Your task to perform on an android device: Open wifi settings Image 0: 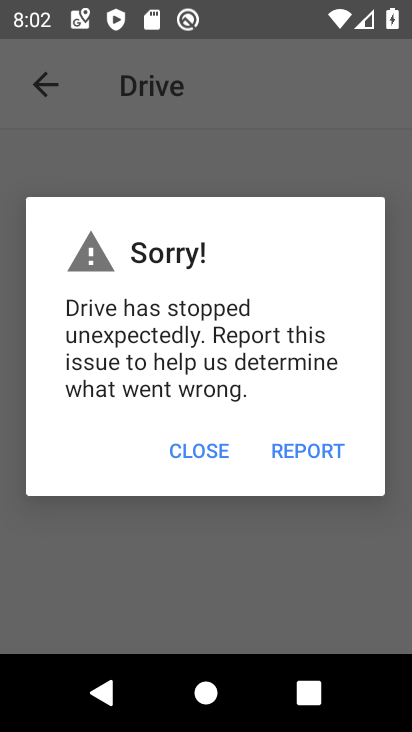
Step 0: press home button
Your task to perform on an android device: Open wifi settings Image 1: 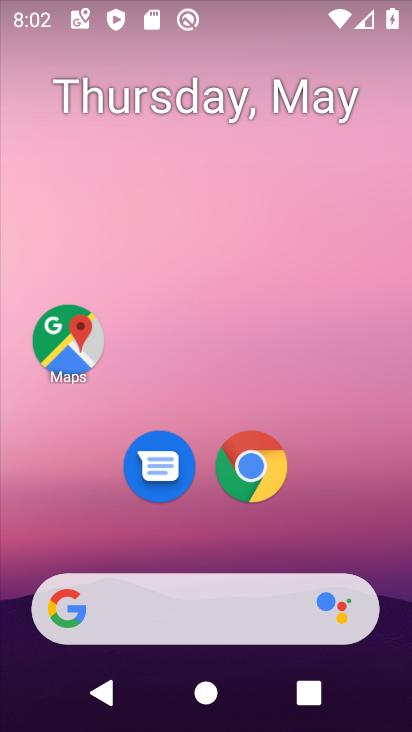
Step 1: drag from (354, 567) to (317, 11)
Your task to perform on an android device: Open wifi settings Image 2: 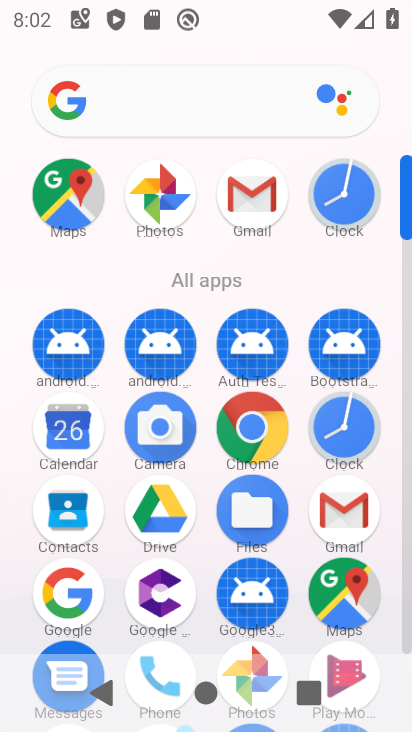
Step 2: click (407, 431)
Your task to perform on an android device: Open wifi settings Image 3: 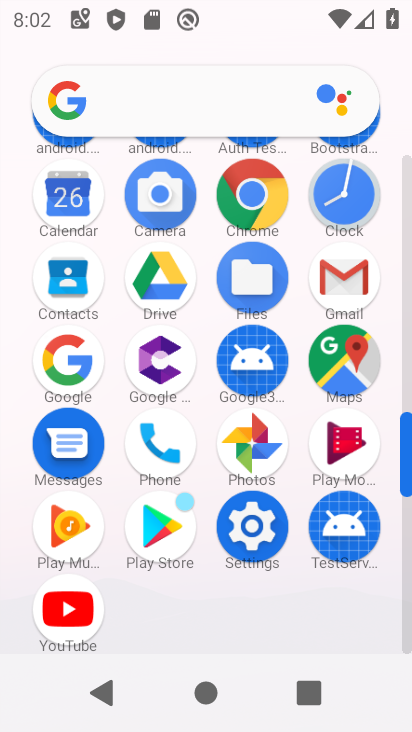
Step 3: click (225, 539)
Your task to perform on an android device: Open wifi settings Image 4: 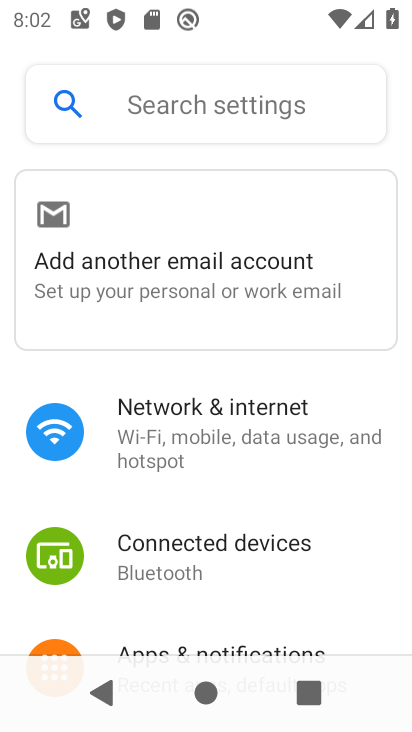
Step 4: click (200, 433)
Your task to perform on an android device: Open wifi settings Image 5: 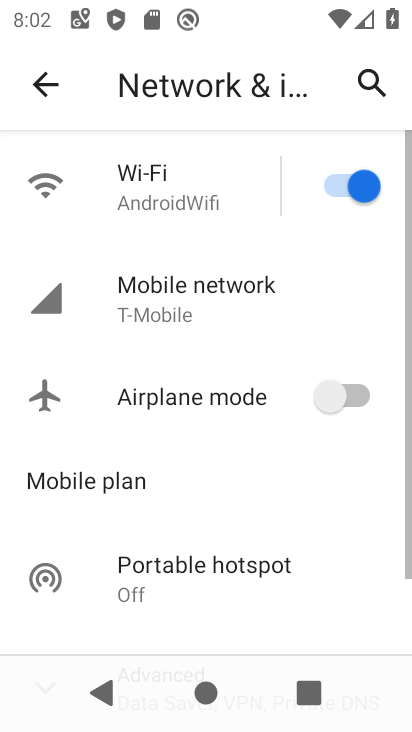
Step 5: click (59, 183)
Your task to perform on an android device: Open wifi settings Image 6: 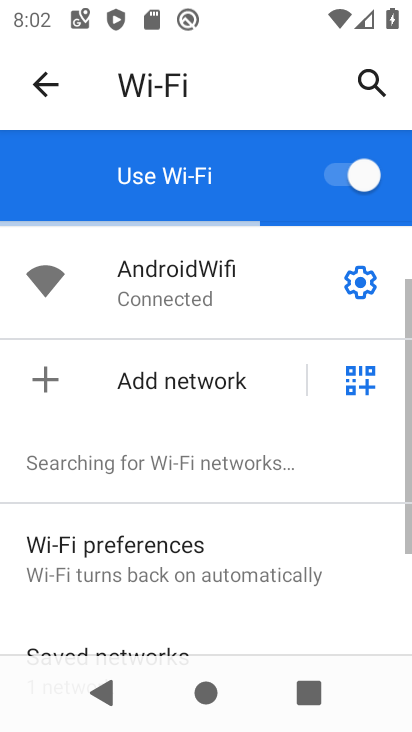
Step 6: task complete